Your task to perform on an android device: Open Yahoo.com Image 0: 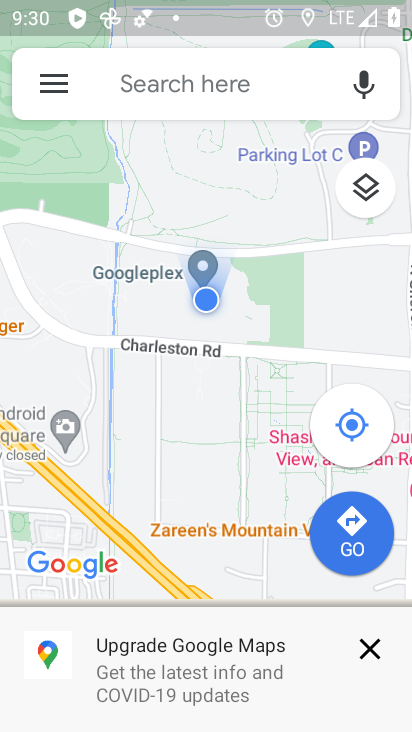
Step 0: press back button
Your task to perform on an android device: Open Yahoo.com Image 1: 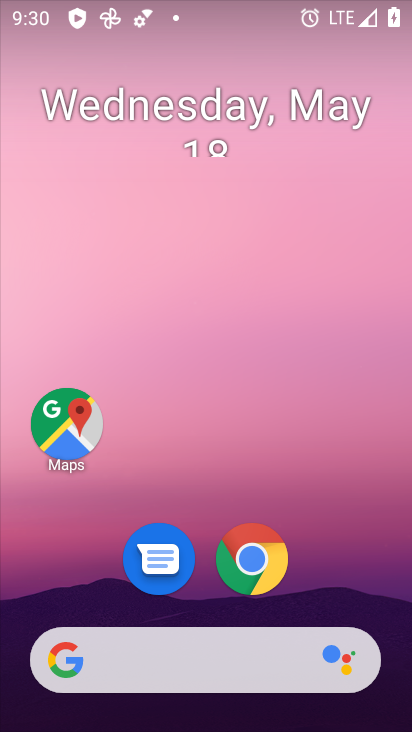
Step 1: drag from (312, 582) to (271, 14)
Your task to perform on an android device: Open Yahoo.com Image 2: 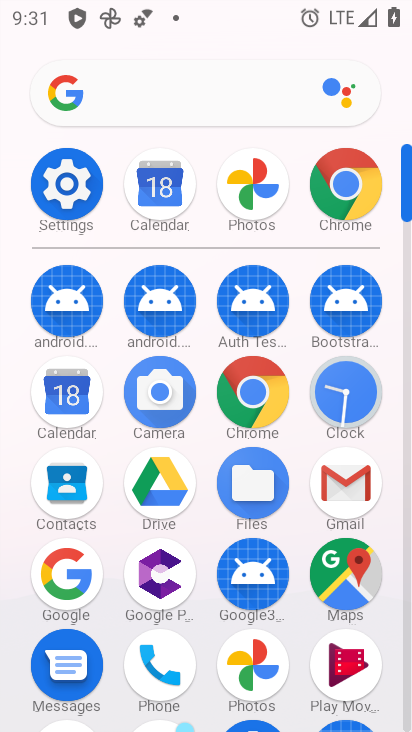
Step 2: click (343, 179)
Your task to perform on an android device: Open Yahoo.com Image 3: 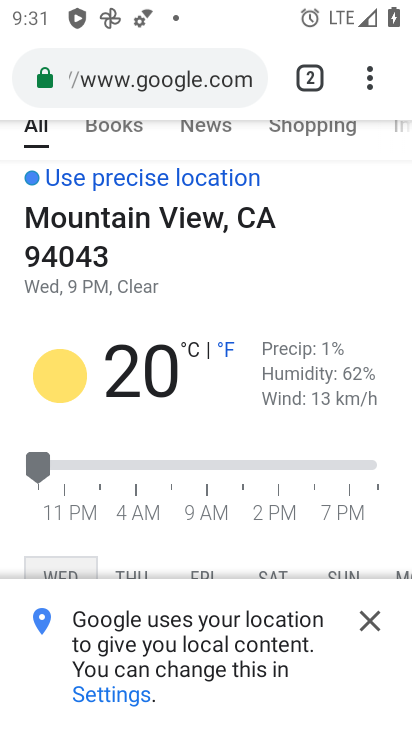
Step 3: click (156, 72)
Your task to perform on an android device: Open Yahoo.com Image 4: 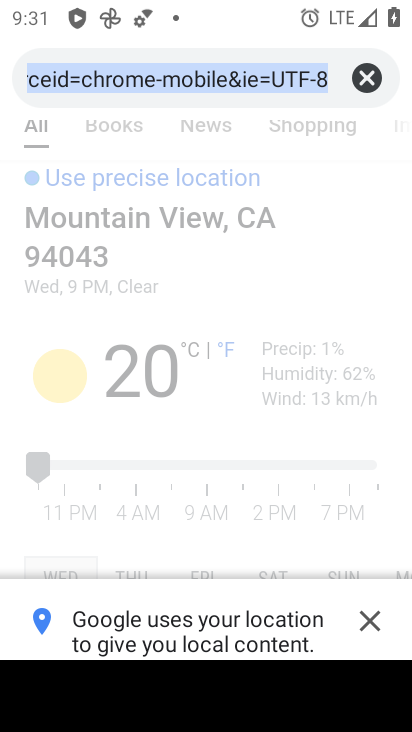
Step 4: click (357, 73)
Your task to perform on an android device: Open Yahoo.com Image 5: 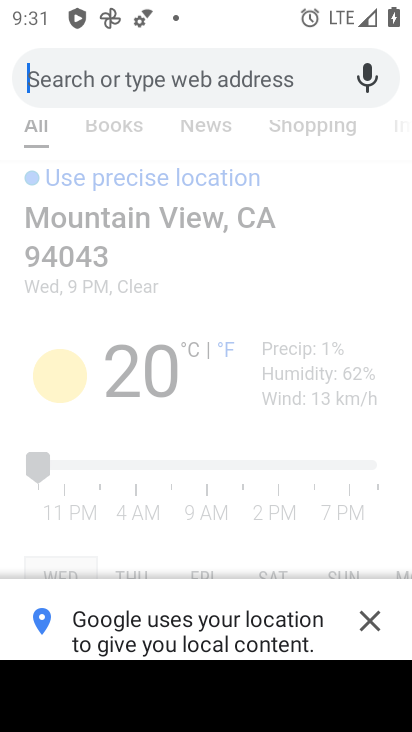
Step 5: type " Yahoo.com"
Your task to perform on an android device: Open Yahoo.com Image 6: 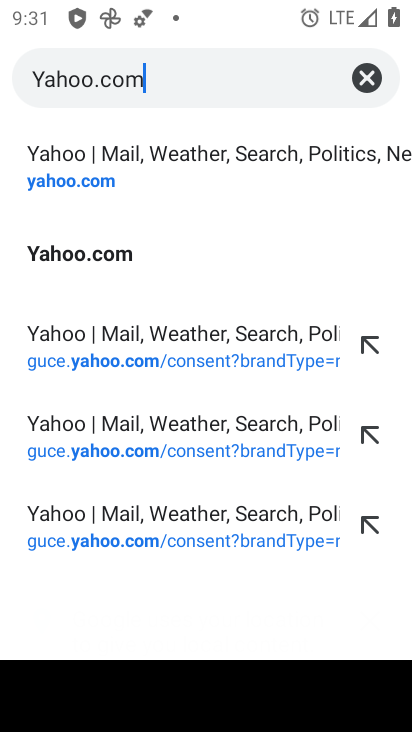
Step 6: type ""
Your task to perform on an android device: Open Yahoo.com Image 7: 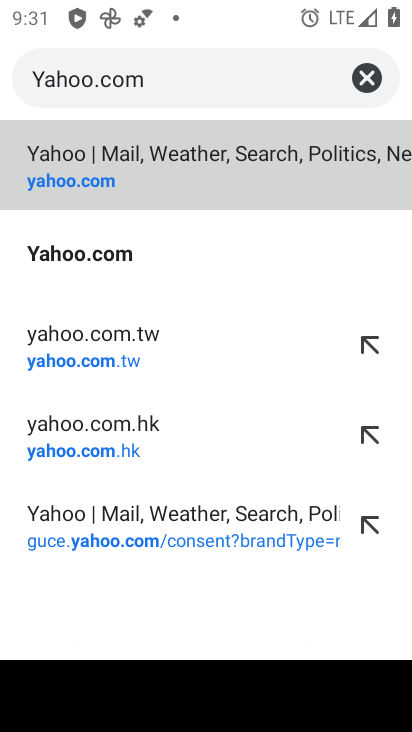
Step 7: click (174, 174)
Your task to perform on an android device: Open Yahoo.com Image 8: 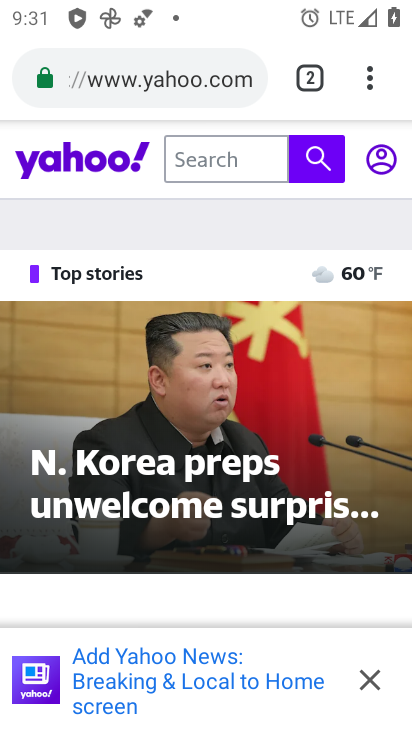
Step 8: task complete